Your task to perform on an android device: turn smart compose on in the gmail app Image 0: 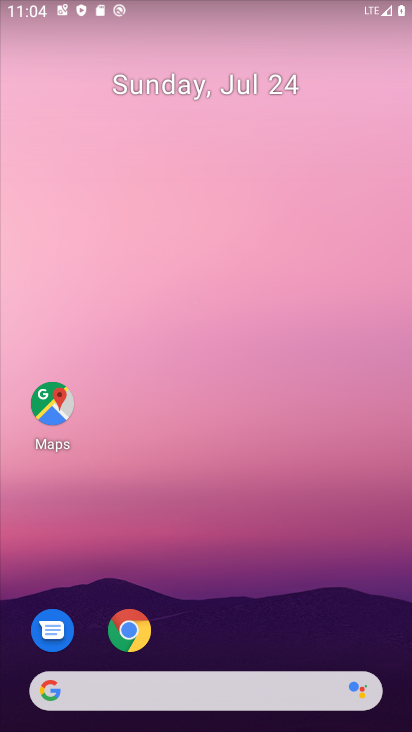
Step 0: drag from (231, 636) to (244, 98)
Your task to perform on an android device: turn smart compose on in the gmail app Image 1: 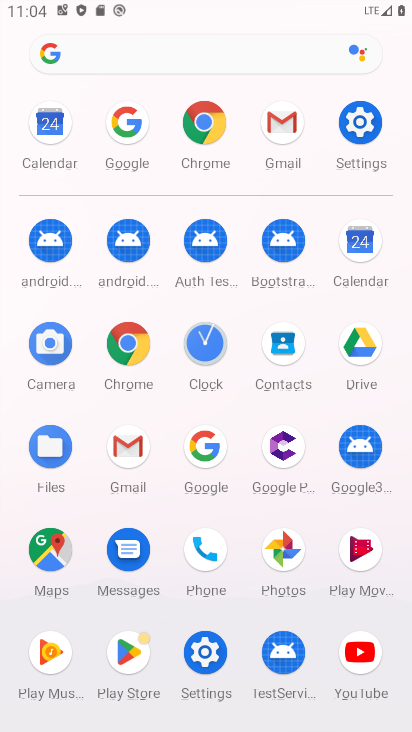
Step 1: click (271, 113)
Your task to perform on an android device: turn smart compose on in the gmail app Image 2: 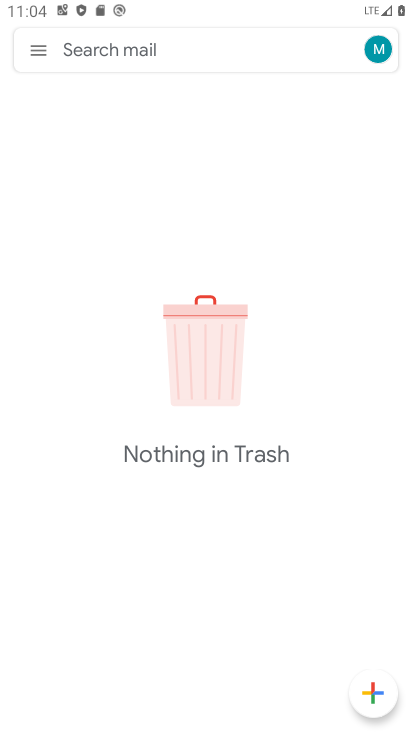
Step 2: click (39, 45)
Your task to perform on an android device: turn smart compose on in the gmail app Image 3: 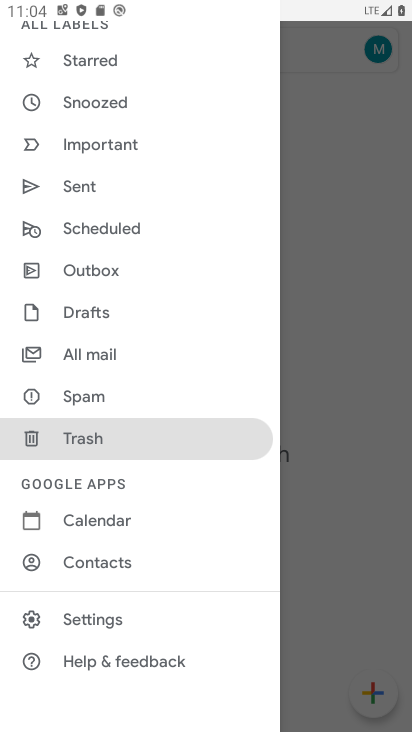
Step 3: click (75, 615)
Your task to perform on an android device: turn smart compose on in the gmail app Image 4: 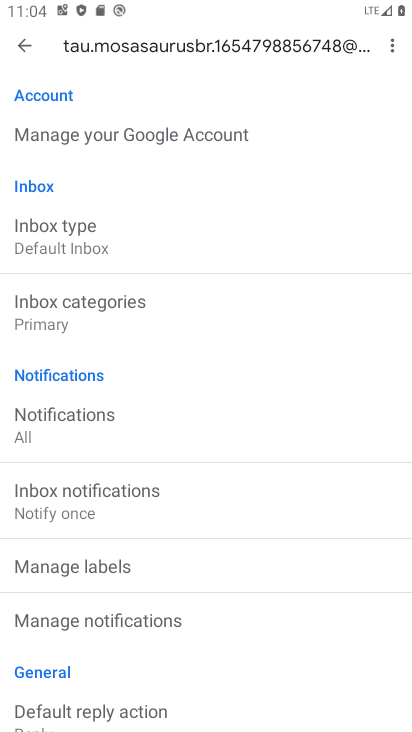
Step 4: task complete